Your task to perform on an android device: Open wifi settings Image 0: 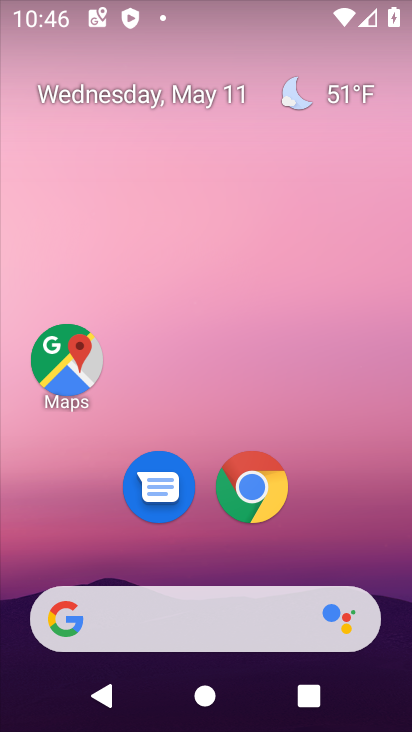
Step 0: drag from (331, 518) to (324, 133)
Your task to perform on an android device: Open wifi settings Image 1: 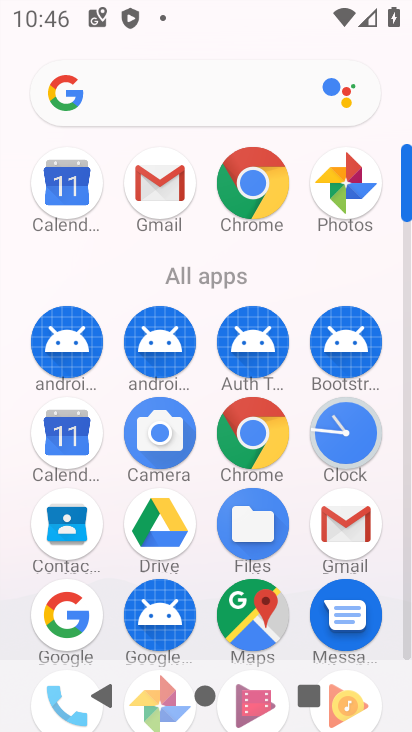
Step 1: drag from (299, 591) to (331, 158)
Your task to perform on an android device: Open wifi settings Image 2: 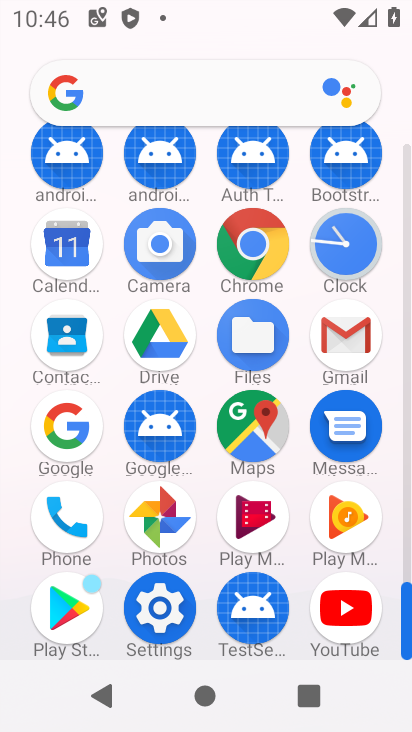
Step 2: click (178, 611)
Your task to perform on an android device: Open wifi settings Image 3: 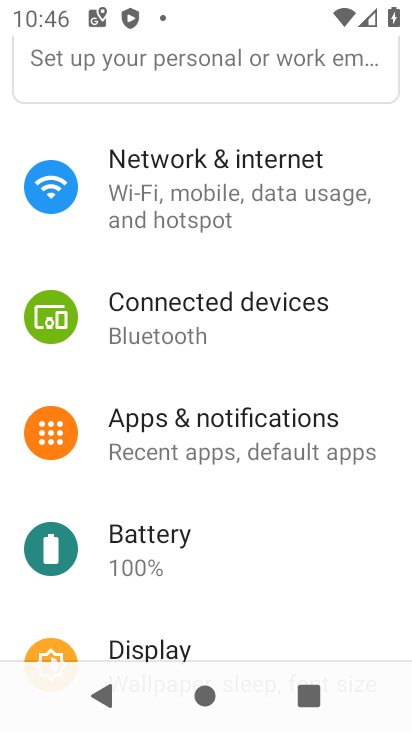
Step 3: drag from (251, 228) to (279, 533)
Your task to perform on an android device: Open wifi settings Image 4: 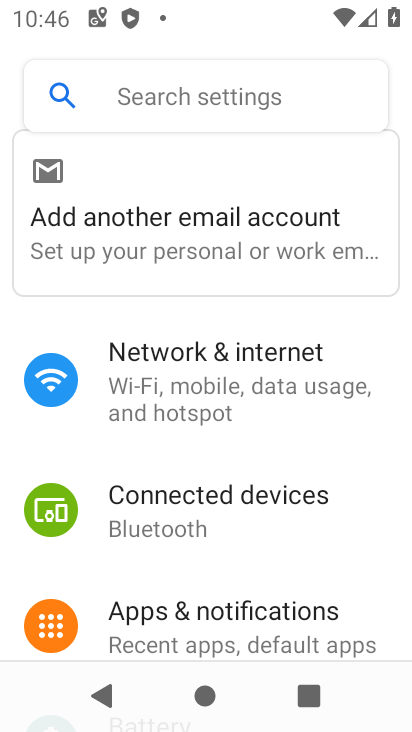
Step 4: click (188, 391)
Your task to perform on an android device: Open wifi settings Image 5: 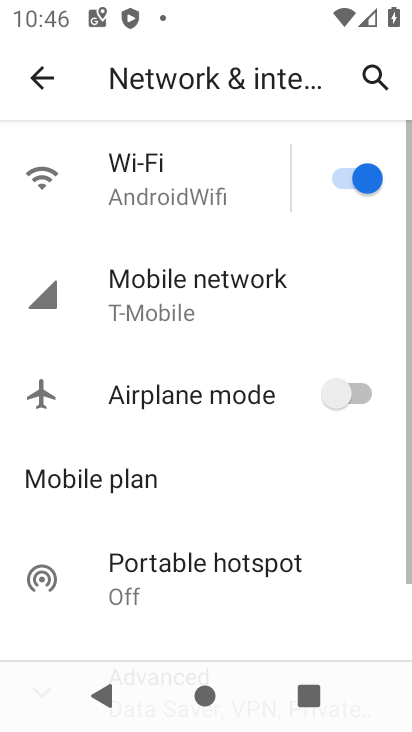
Step 5: click (113, 180)
Your task to perform on an android device: Open wifi settings Image 6: 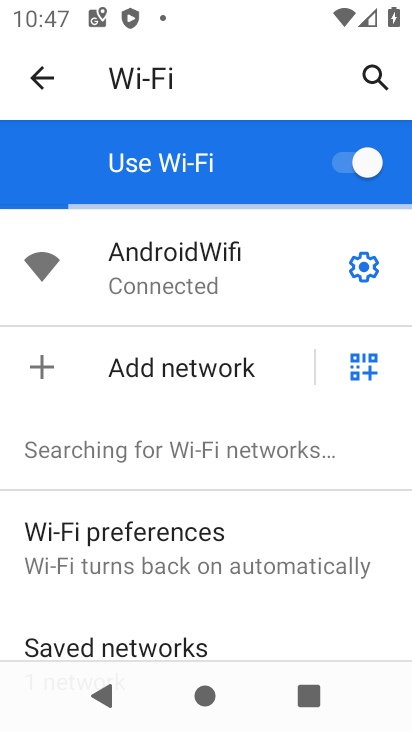
Step 6: task complete